Your task to perform on an android device: check the backup settings in the google photos Image 0: 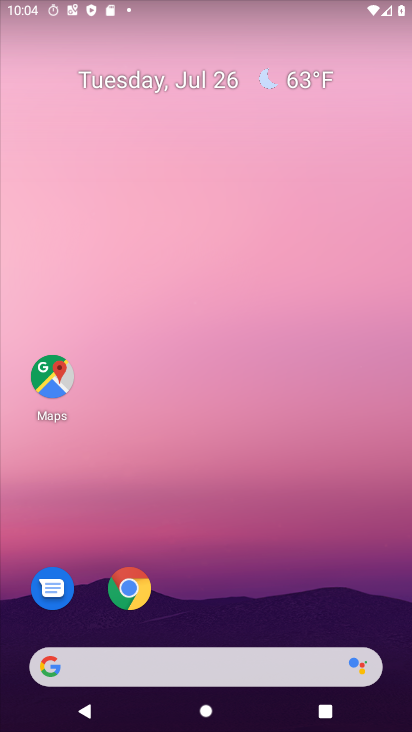
Step 0: drag from (206, 601) to (285, 190)
Your task to perform on an android device: check the backup settings in the google photos Image 1: 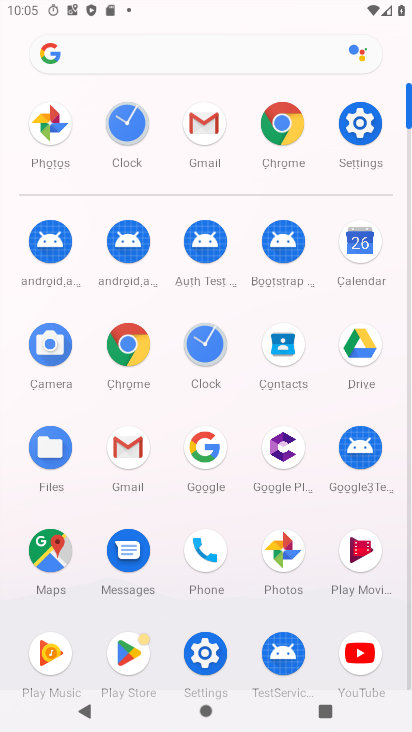
Step 1: click (54, 160)
Your task to perform on an android device: check the backup settings in the google photos Image 2: 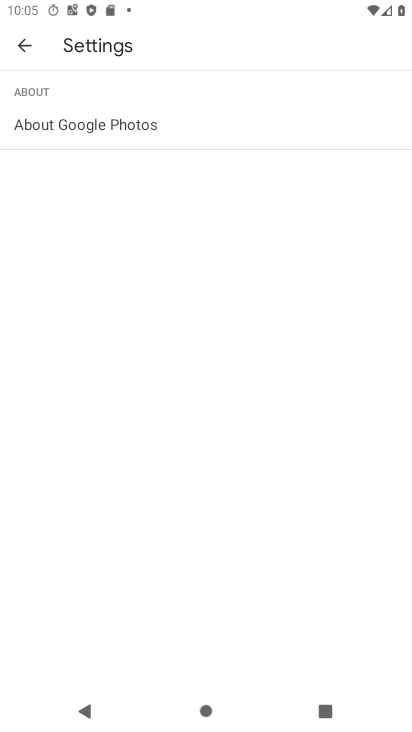
Step 2: click (18, 48)
Your task to perform on an android device: check the backup settings in the google photos Image 3: 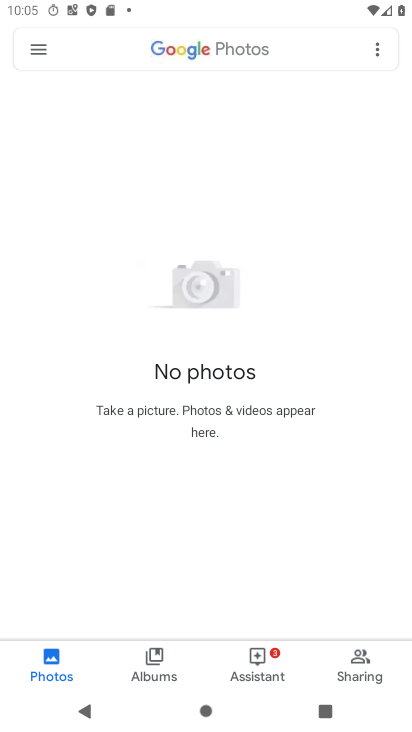
Step 3: click (18, 48)
Your task to perform on an android device: check the backup settings in the google photos Image 4: 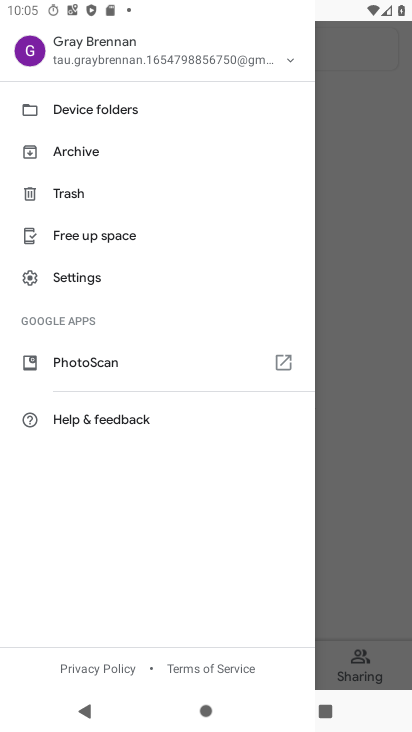
Step 4: click (105, 282)
Your task to perform on an android device: check the backup settings in the google photos Image 5: 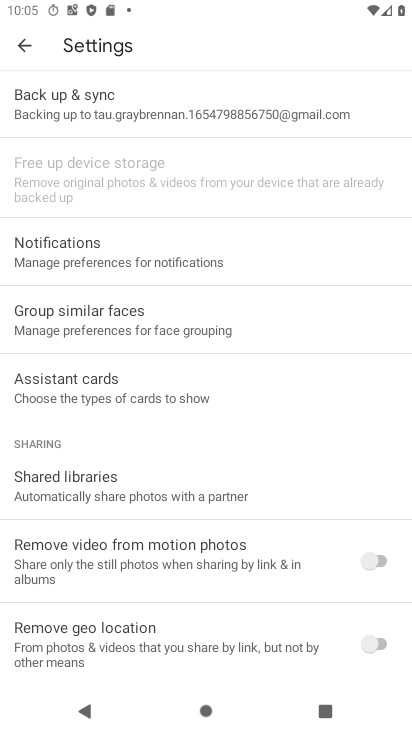
Step 5: click (70, 109)
Your task to perform on an android device: check the backup settings in the google photos Image 6: 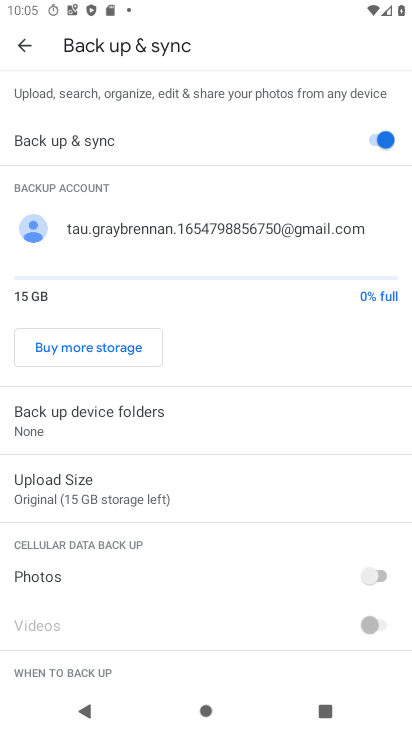
Step 6: task complete